Your task to perform on an android device: Open Amazon Image 0: 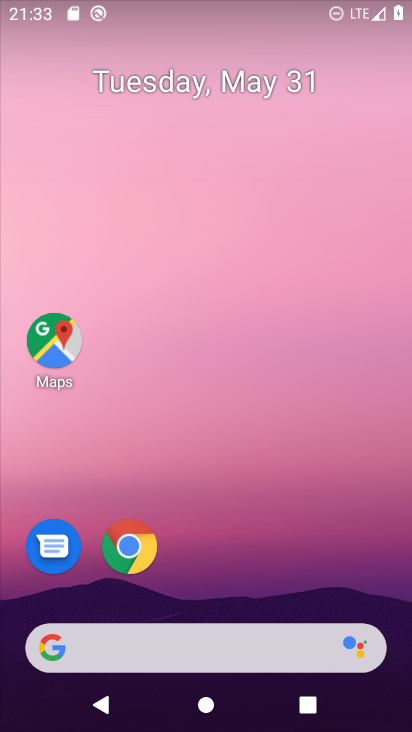
Step 0: click (131, 540)
Your task to perform on an android device: Open Amazon Image 1: 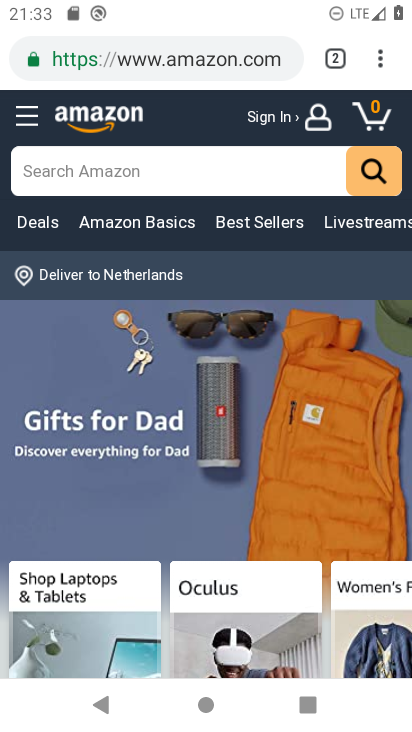
Step 1: task complete